Your task to perform on an android device: Check the weather Image 0: 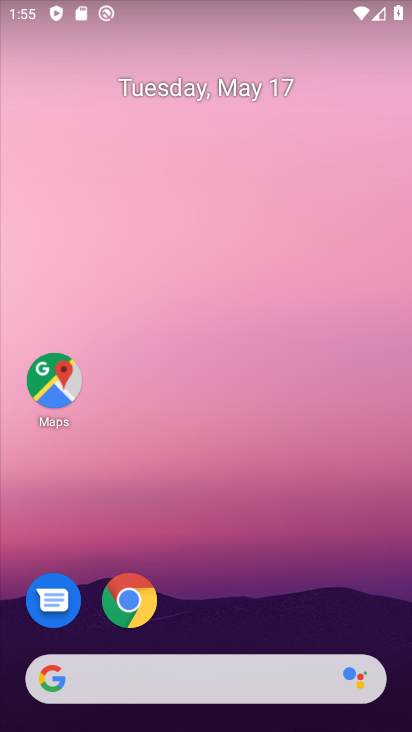
Step 0: click (202, 7)
Your task to perform on an android device: Check the weather Image 1: 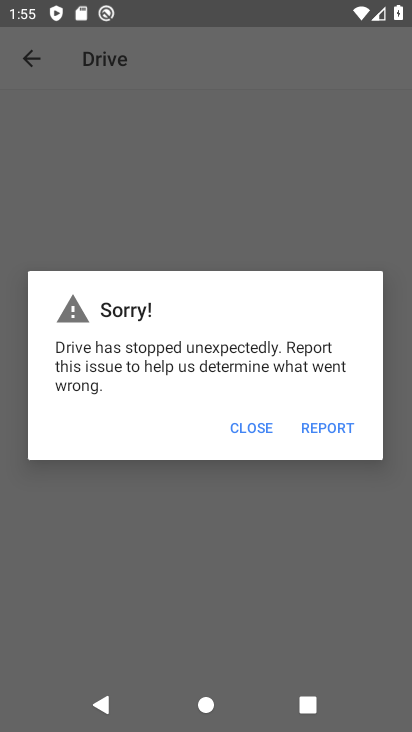
Step 1: drag from (274, 478) to (167, 28)
Your task to perform on an android device: Check the weather Image 2: 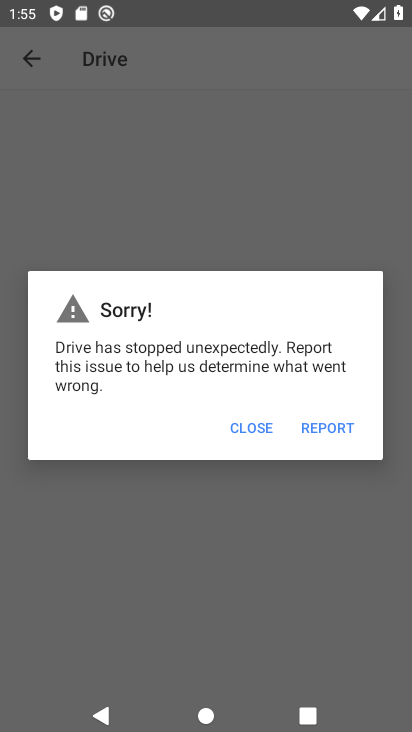
Step 2: drag from (251, 446) to (225, 9)
Your task to perform on an android device: Check the weather Image 3: 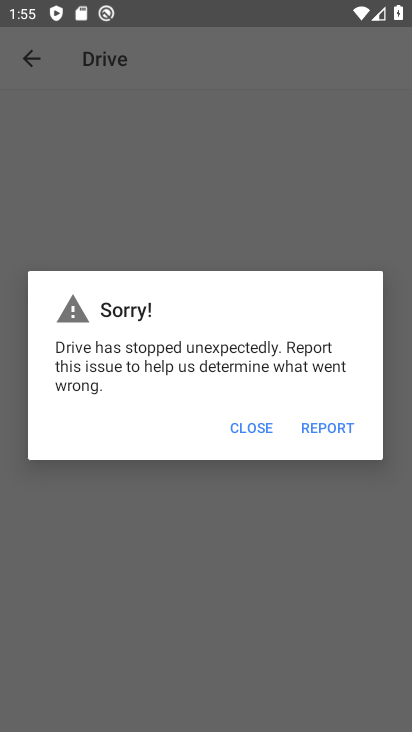
Step 3: press back button
Your task to perform on an android device: Check the weather Image 4: 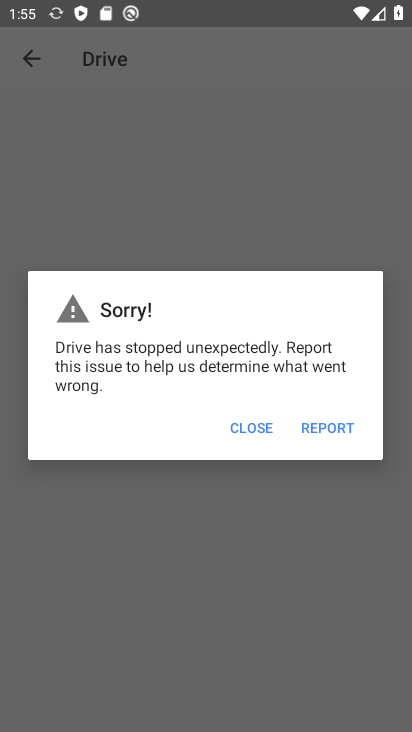
Step 4: drag from (265, 293) to (206, 29)
Your task to perform on an android device: Check the weather Image 5: 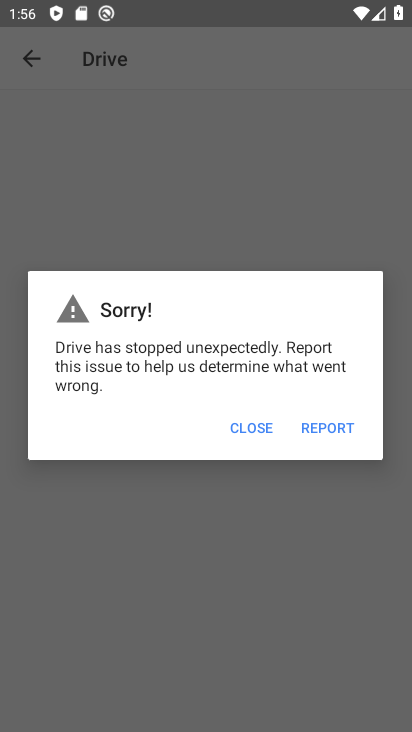
Step 5: click (247, 428)
Your task to perform on an android device: Check the weather Image 6: 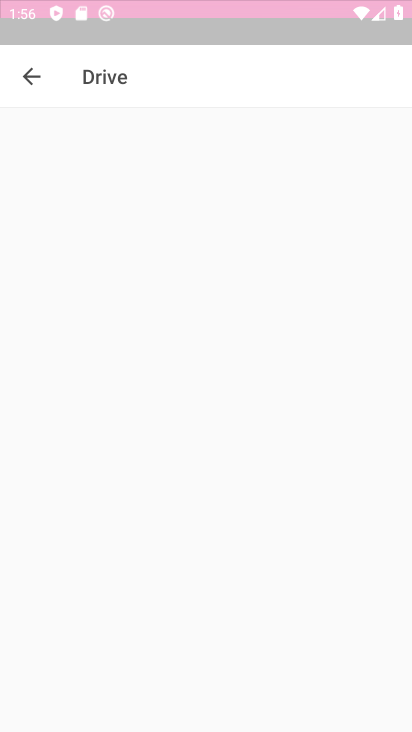
Step 6: click (253, 421)
Your task to perform on an android device: Check the weather Image 7: 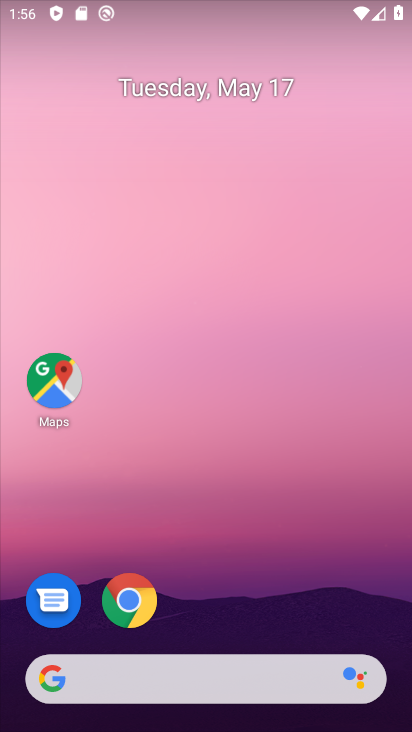
Step 7: drag from (281, 559) to (90, 11)
Your task to perform on an android device: Check the weather Image 8: 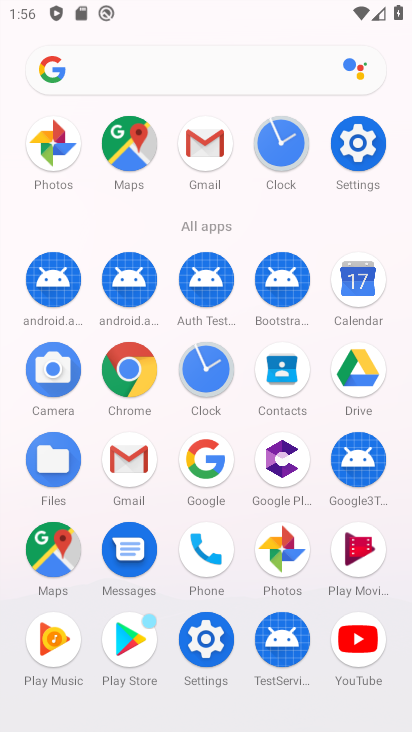
Step 8: press home button
Your task to perform on an android device: Check the weather Image 9: 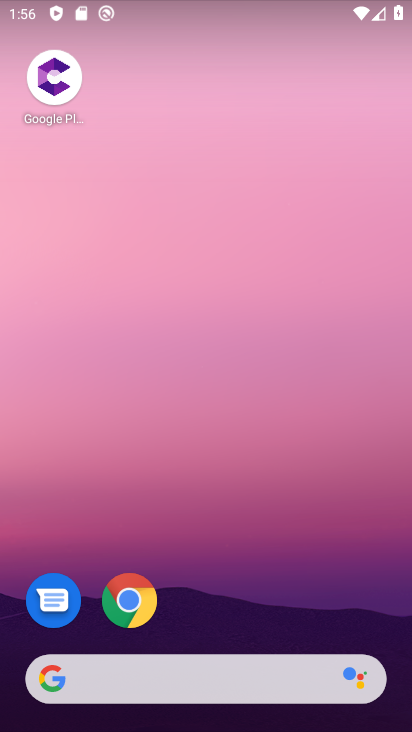
Step 9: drag from (8, 175) to (410, 300)
Your task to perform on an android device: Check the weather Image 10: 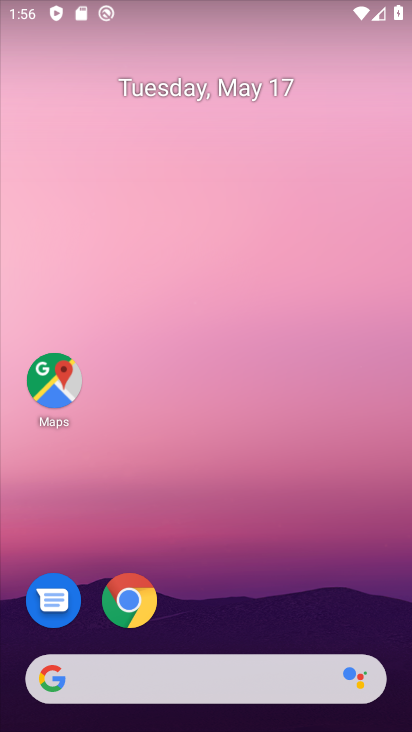
Step 10: drag from (16, 177) to (405, 326)
Your task to perform on an android device: Check the weather Image 11: 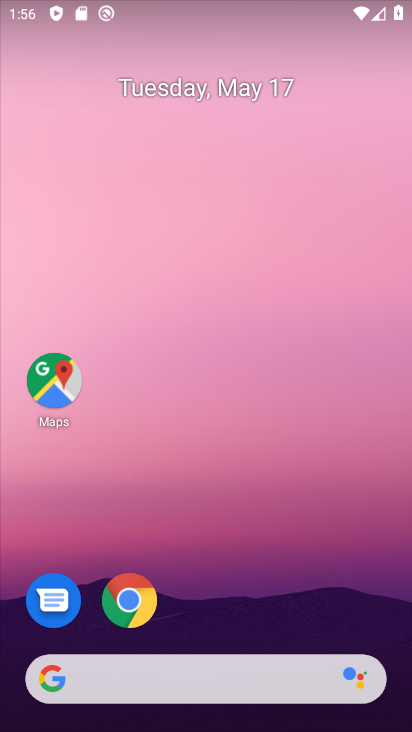
Step 11: drag from (8, 189) to (408, 404)
Your task to perform on an android device: Check the weather Image 12: 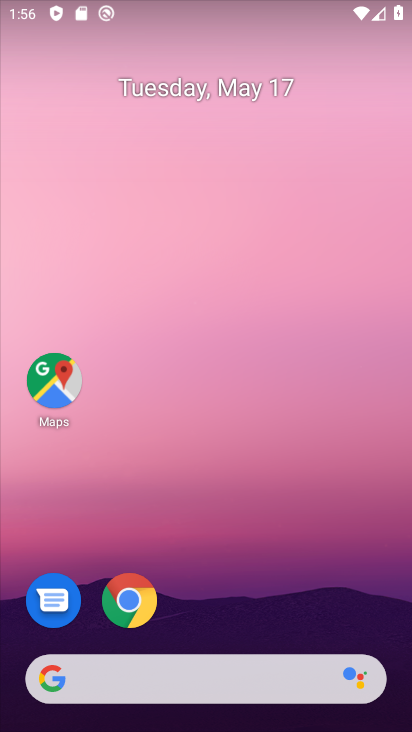
Step 12: drag from (46, 208) to (357, 332)
Your task to perform on an android device: Check the weather Image 13: 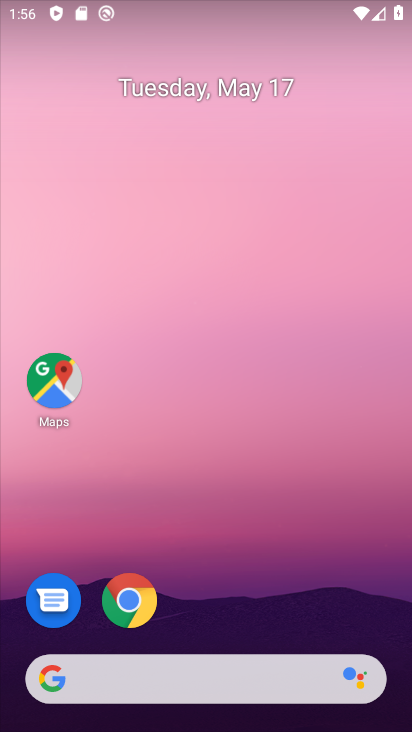
Step 13: drag from (157, 266) to (243, 334)
Your task to perform on an android device: Check the weather Image 14: 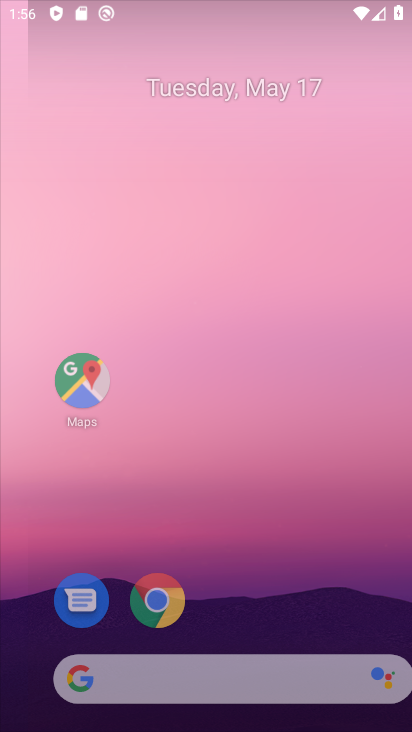
Step 14: drag from (35, 182) to (294, 323)
Your task to perform on an android device: Check the weather Image 15: 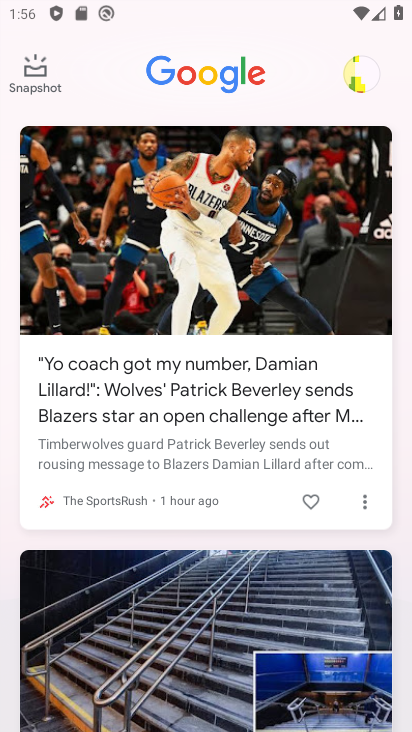
Step 15: drag from (173, 196) to (287, 649)
Your task to perform on an android device: Check the weather Image 16: 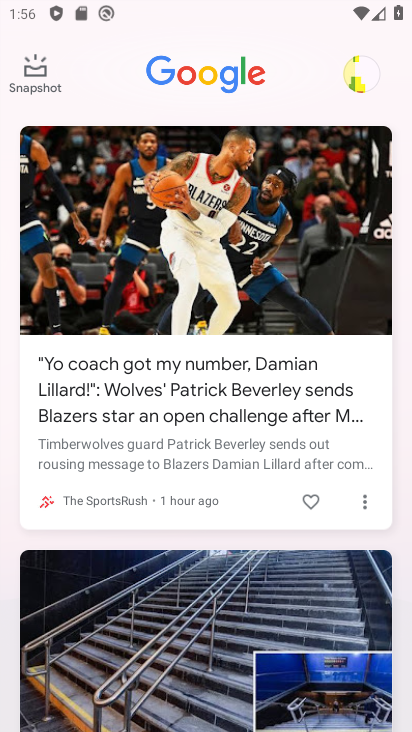
Step 16: drag from (169, 251) to (266, 622)
Your task to perform on an android device: Check the weather Image 17: 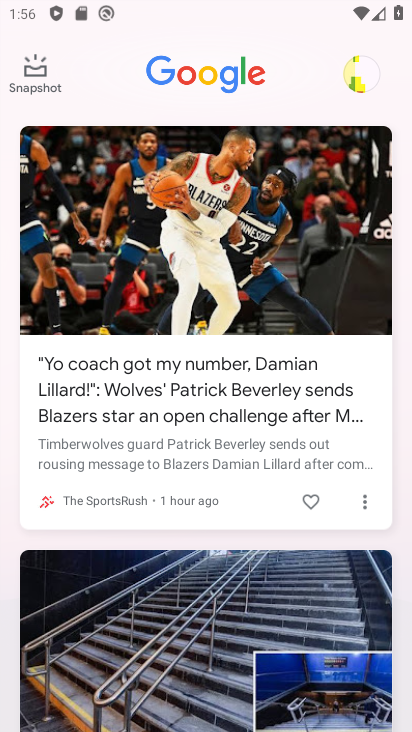
Step 17: drag from (175, 276) to (232, 721)
Your task to perform on an android device: Check the weather Image 18: 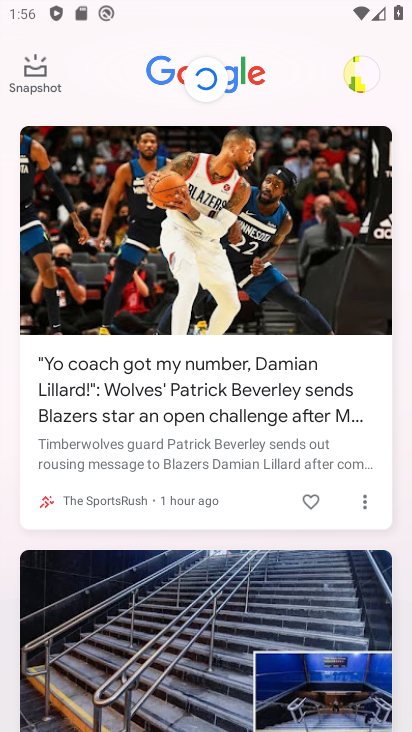
Step 18: drag from (184, 336) to (218, 648)
Your task to perform on an android device: Check the weather Image 19: 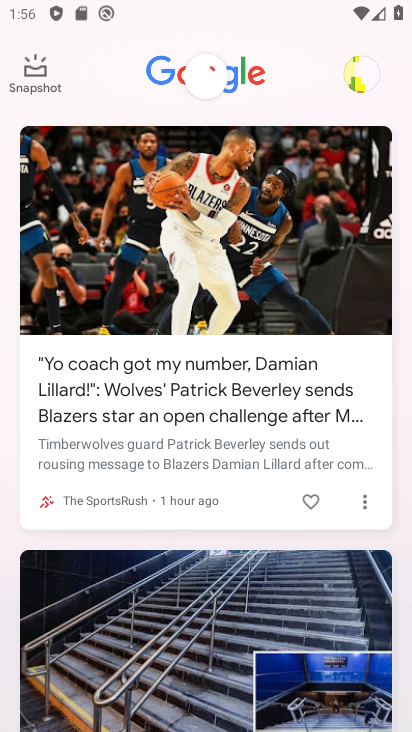
Step 19: drag from (187, 217) to (262, 618)
Your task to perform on an android device: Check the weather Image 20: 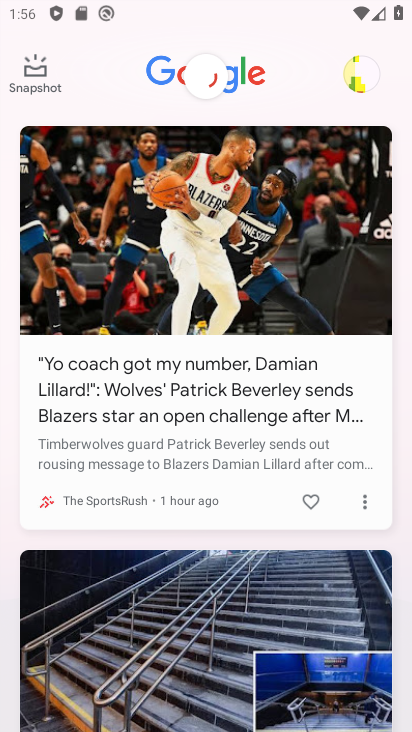
Step 20: drag from (239, 242) to (343, 628)
Your task to perform on an android device: Check the weather Image 21: 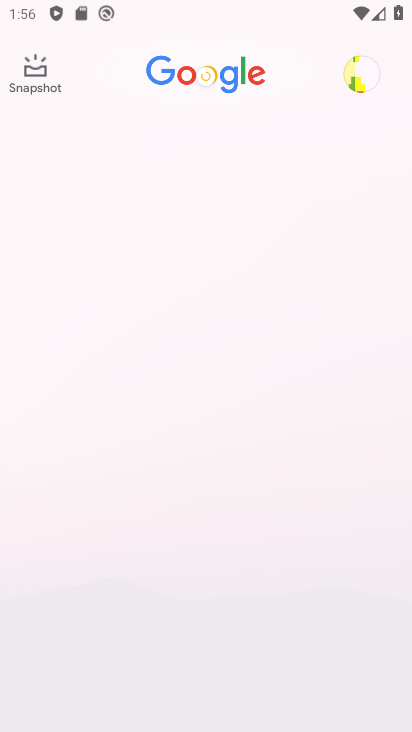
Step 21: drag from (200, 216) to (297, 405)
Your task to perform on an android device: Check the weather Image 22: 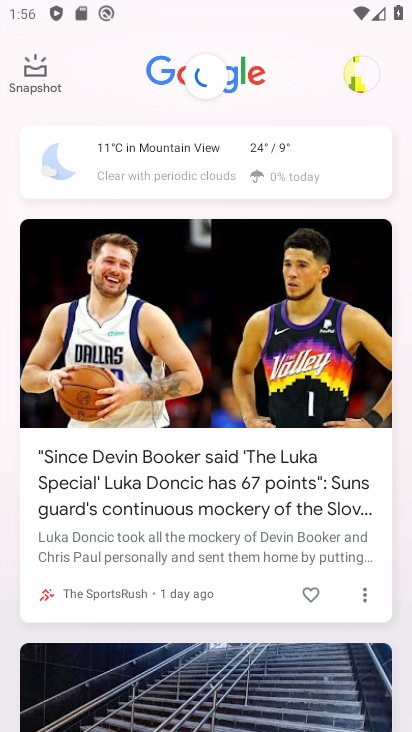
Step 22: click (180, 164)
Your task to perform on an android device: Check the weather Image 23: 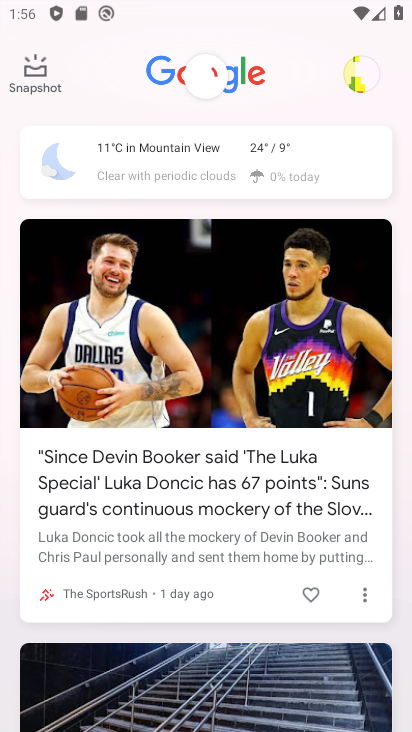
Step 23: click (180, 164)
Your task to perform on an android device: Check the weather Image 24: 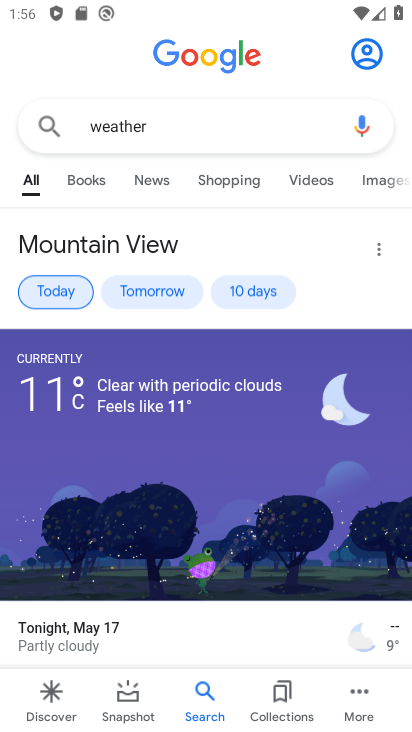
Step 24: task complete